Your task to perform on an android device: Check the news Image 0: 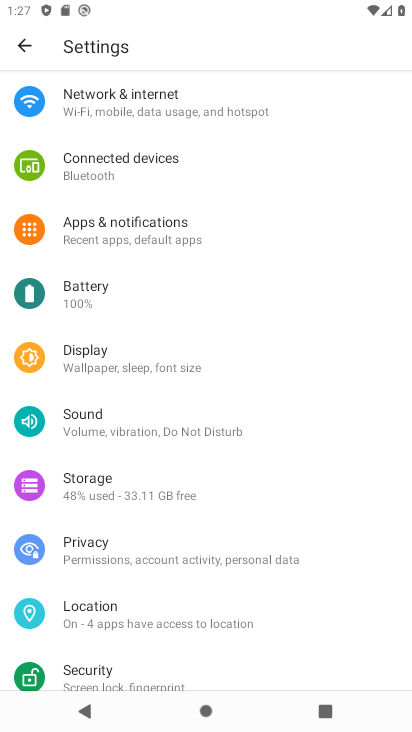
Step 0: press home button
Your task to perform on an android device: Check the news Image 1: 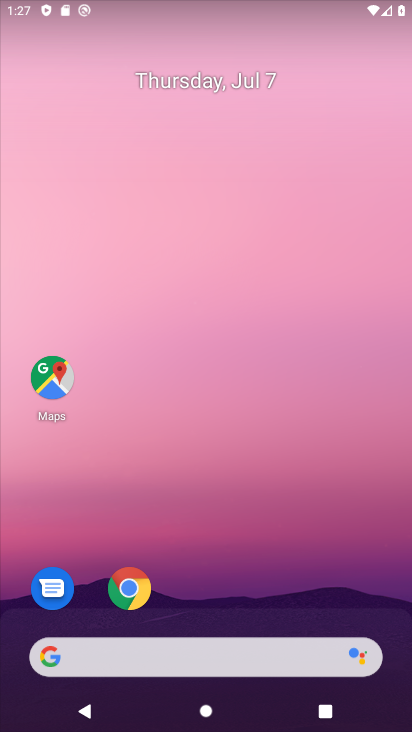
Step 1: drag from (164, 635) to (225, 226)
Your task to perform on an android device: Check the news Image 2: 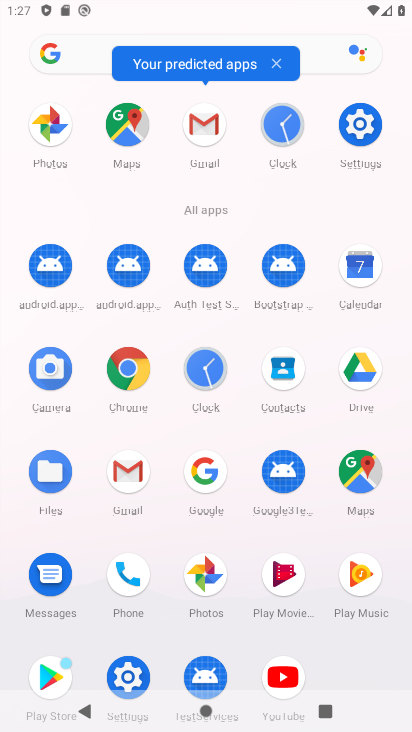
Step 2: click (202, 476)
Your task to perform on an android device: Check the news Image 3: 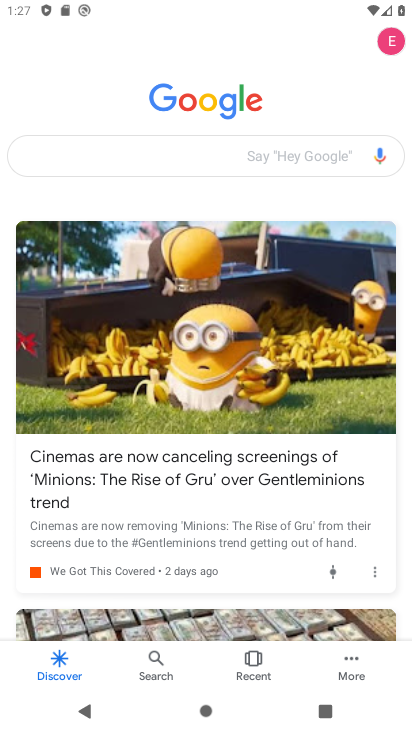
Step 3: click (218, 155)
Your task to perform on an android device: Check the news Image 4: 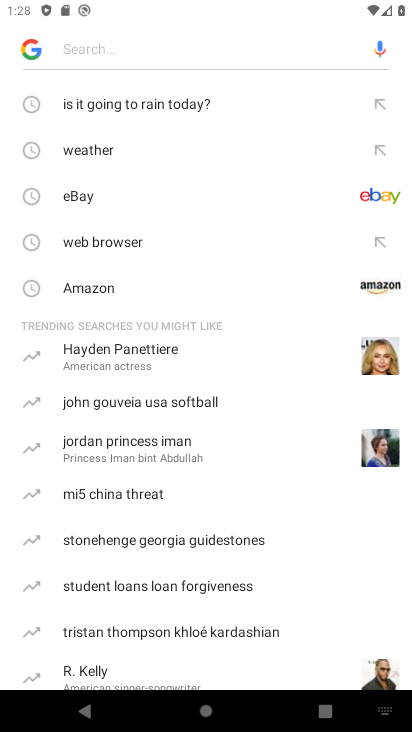
Step 4: type "news"
Your task to perform on an android device: Check the news Image 5: 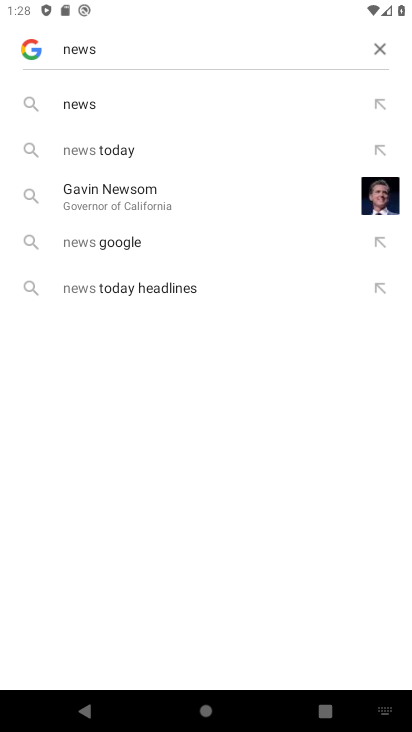
Step 5: click (98, 111)
Your task to perform on an android device: Check the news Image 6: 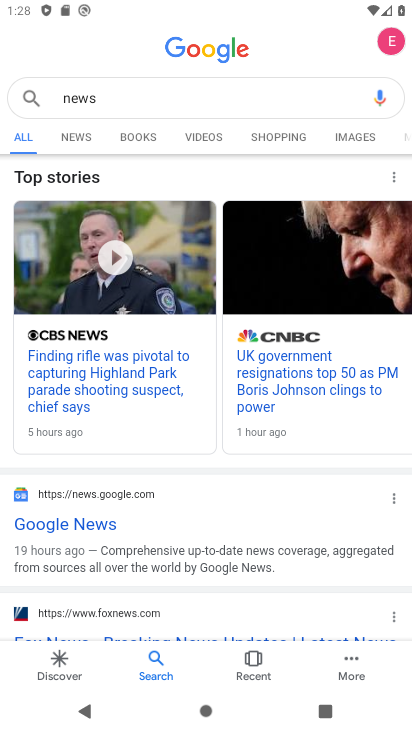
Step 6: task complete